Your task to perform on an android device: refresh tabs in the chrome app Image 0: 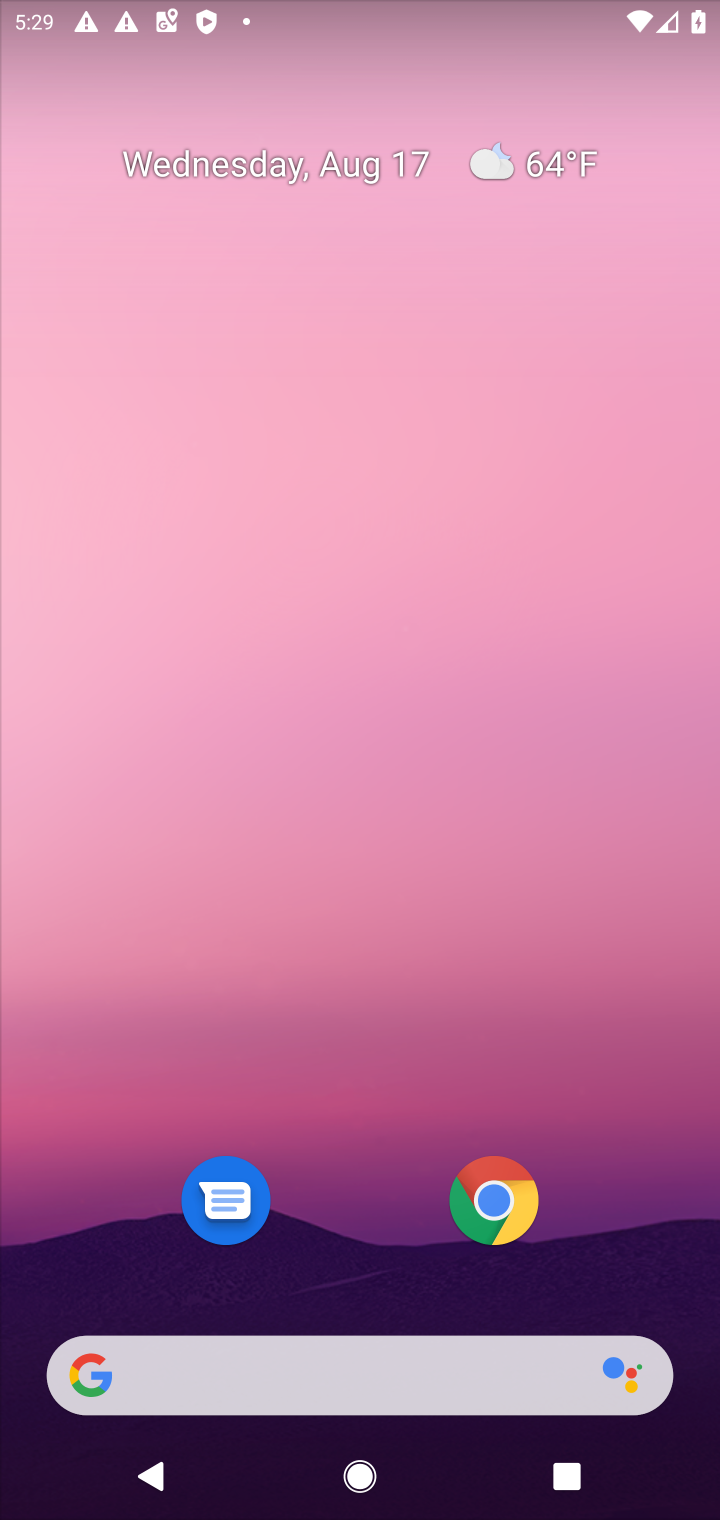
Step 0: click (501, 1198)
Your task to perform on an android device: refresh tabs in the chrome app Image 1: 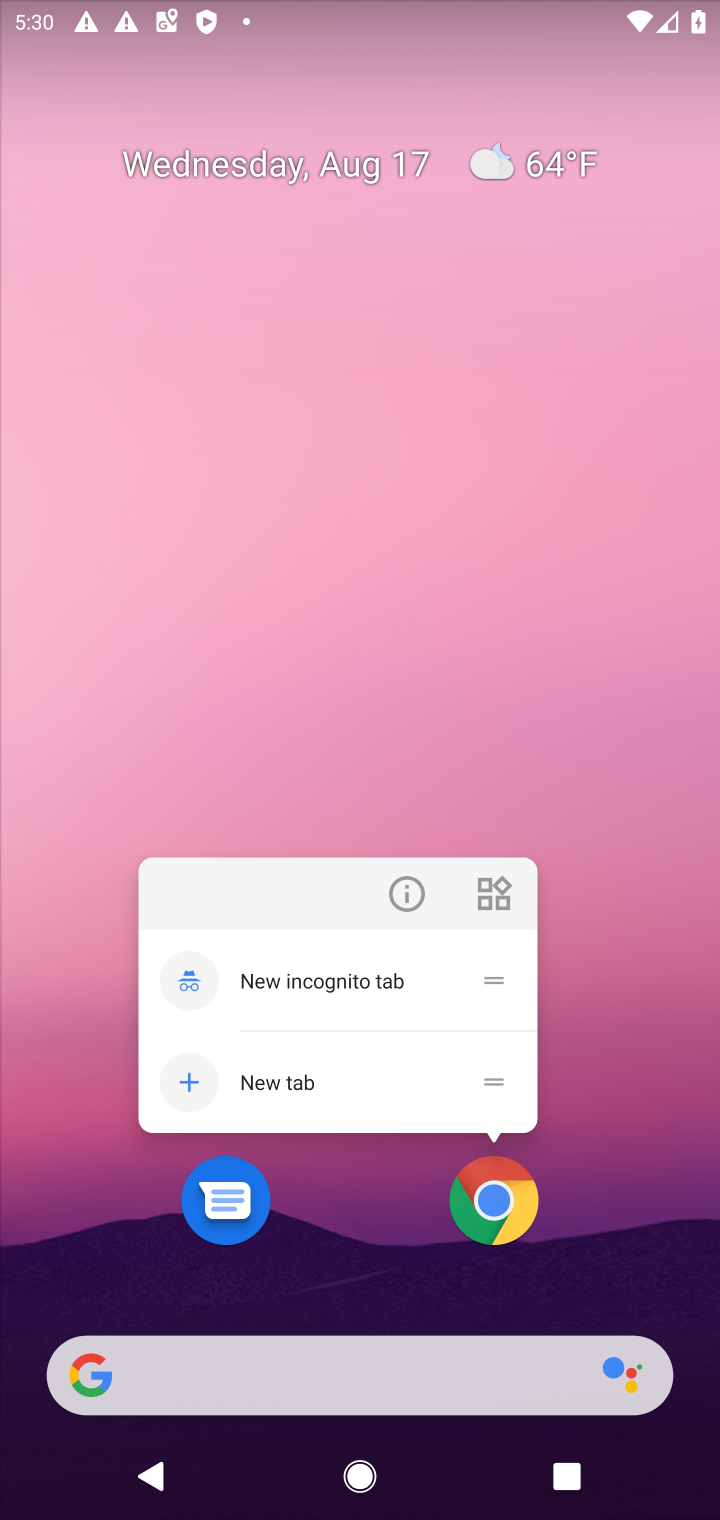
Step 1: click (495, 1193)
Your task to perform on an android device: refresh tabs in the chrome app Image 2: 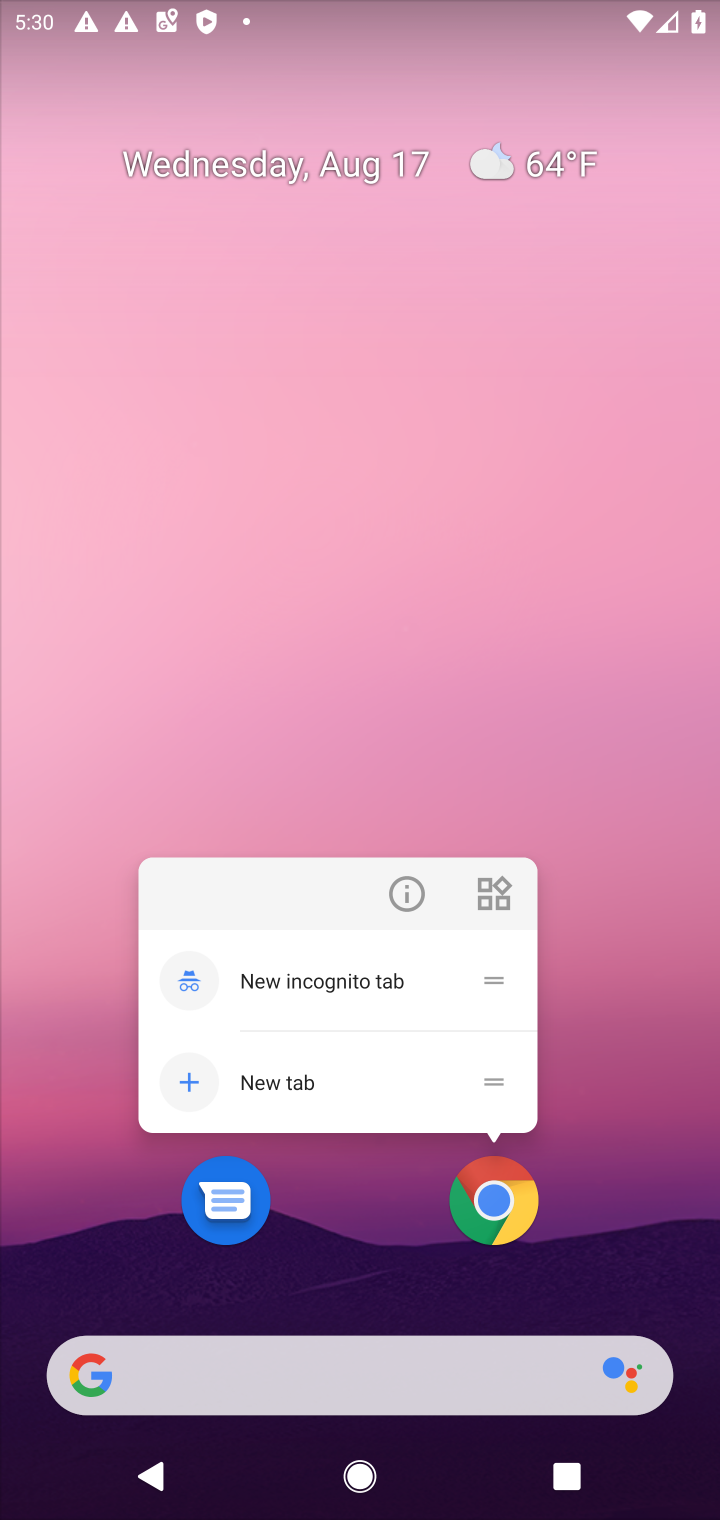
Step 2: click (495, 1193)
Your task to perform on an android device: refresh tabs in the chrome app Image 3: 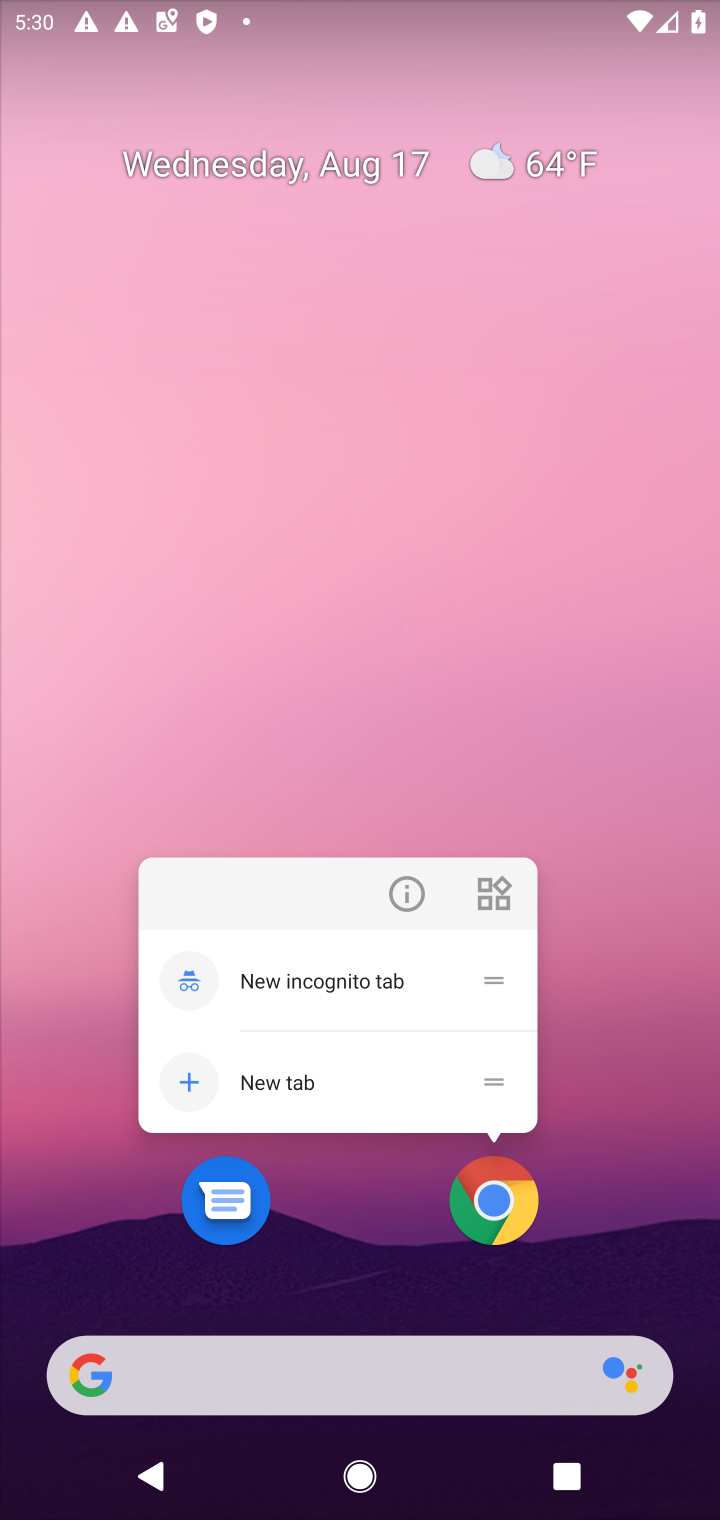
Step 3: click (495, 1193)
Your task to perform on an android device: refresh tabs in the chrome app Image 4: 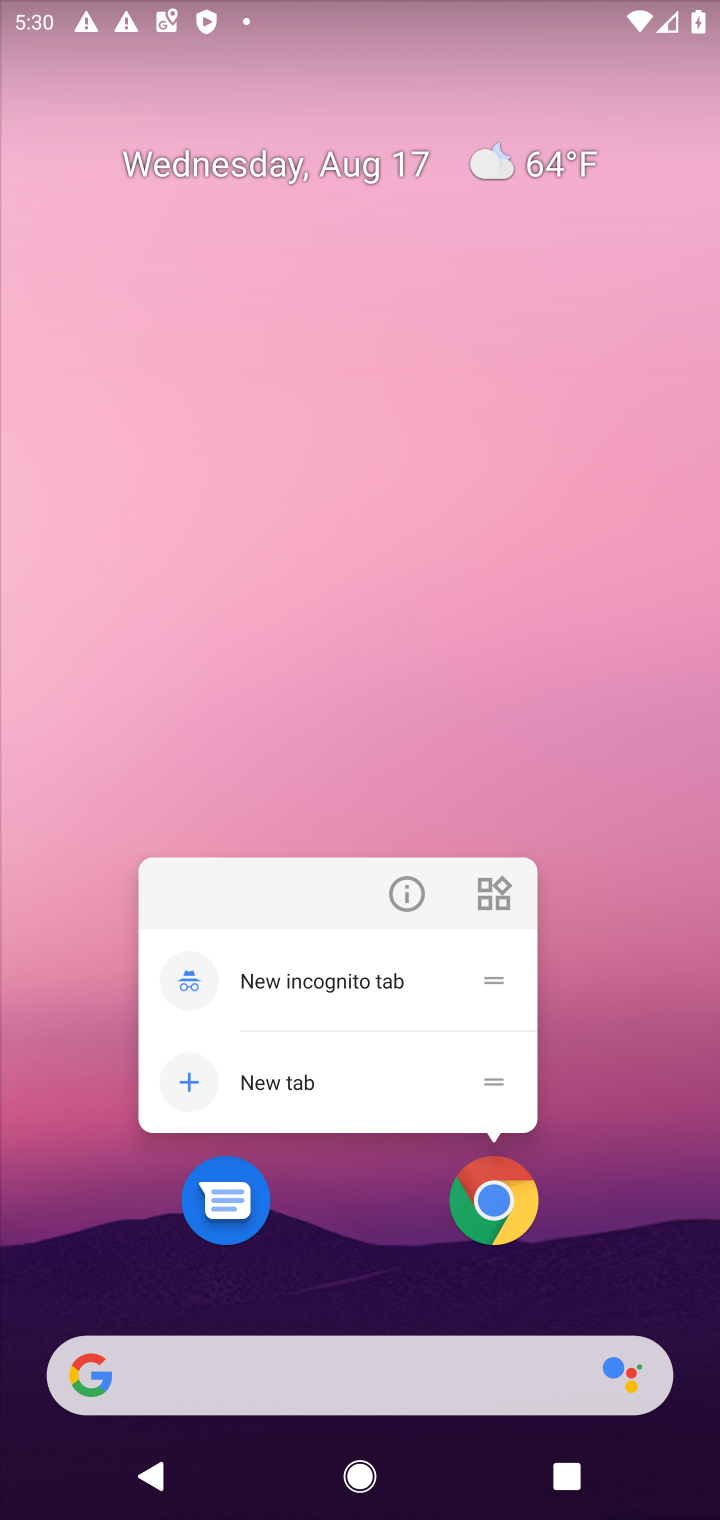
Step 4: click (495, 1193)
Your task to perform on an android device: refresh tabs in the chrome app Image 5: 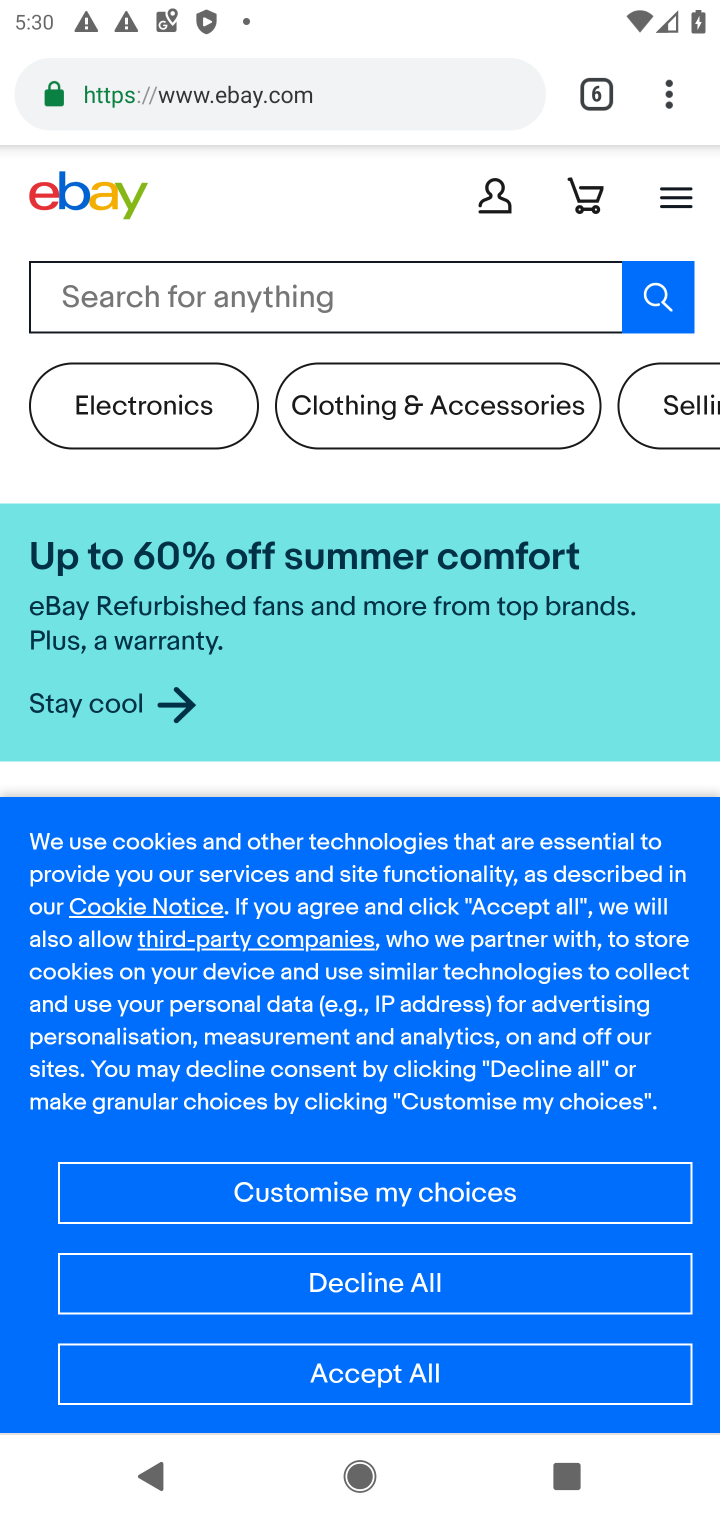
Step 5: click (663, 105)
Your task to perform on an android device: refresh tabs in the chrome app Image 6: 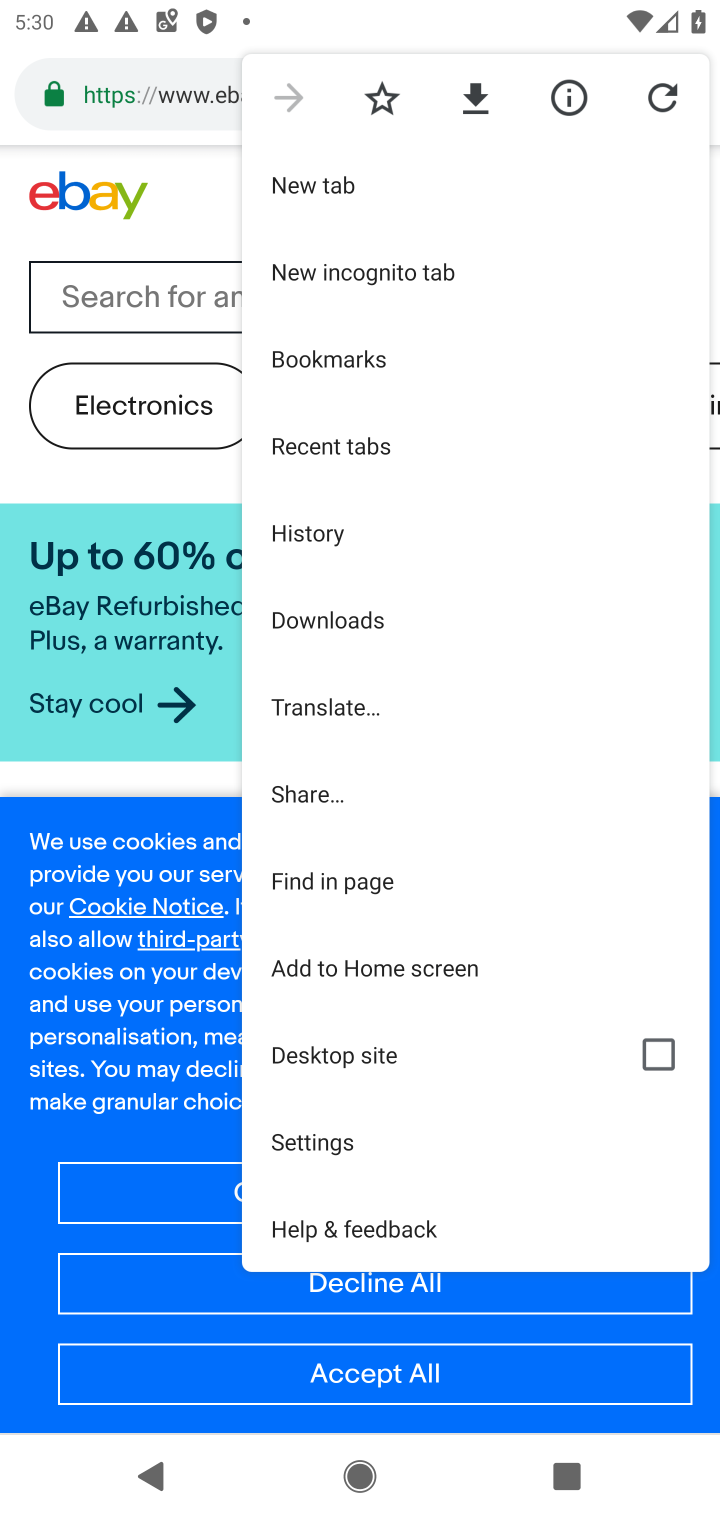
Step 6: click (657, 90)
Your task to perform on an android device: refresh tabs in the chrome app Image 7: 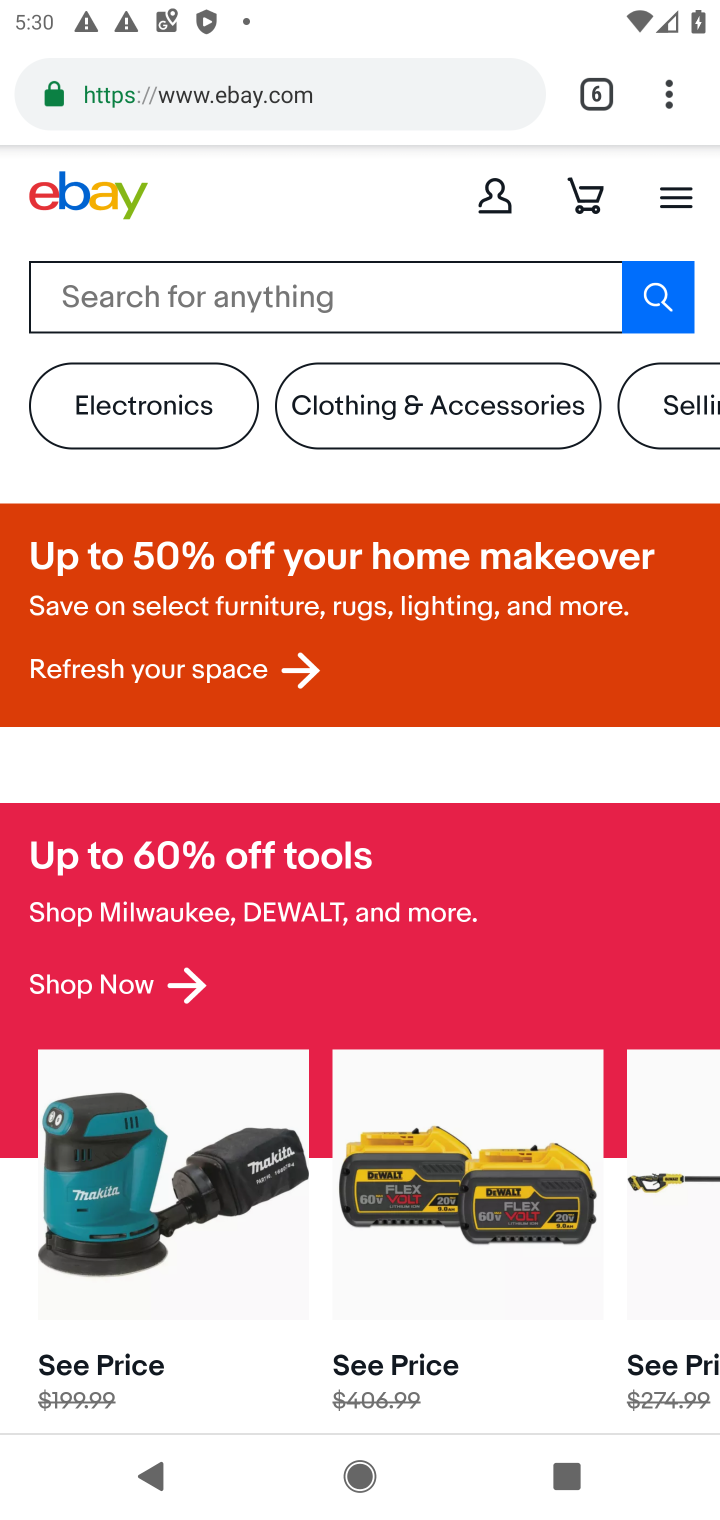
Step 7: task complete